Your task to perform on an android device: Open battery settings Image 0: 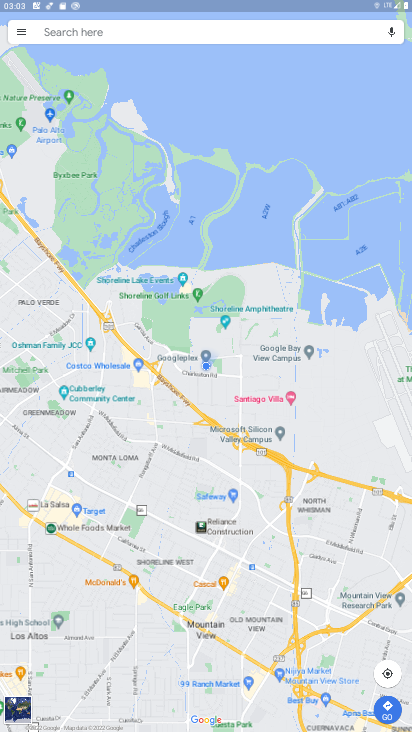
Step 0: press home button
Your task to perform on an android device: Open battery settings Image 1: 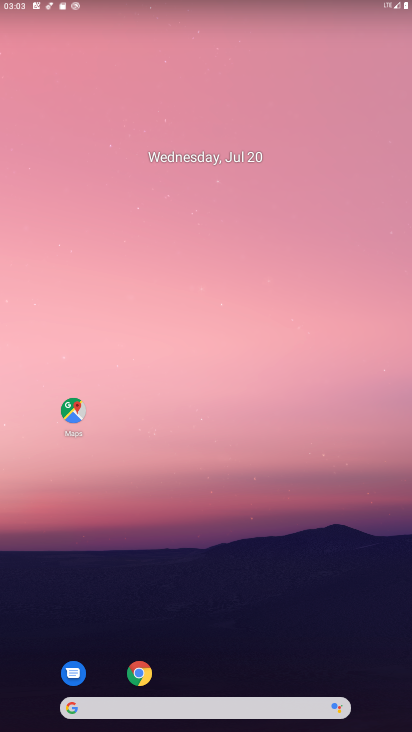
Step 1: drag from (214, 647) to (250, 209)
Your task to perform on an android device: Open battery settings Image 2: 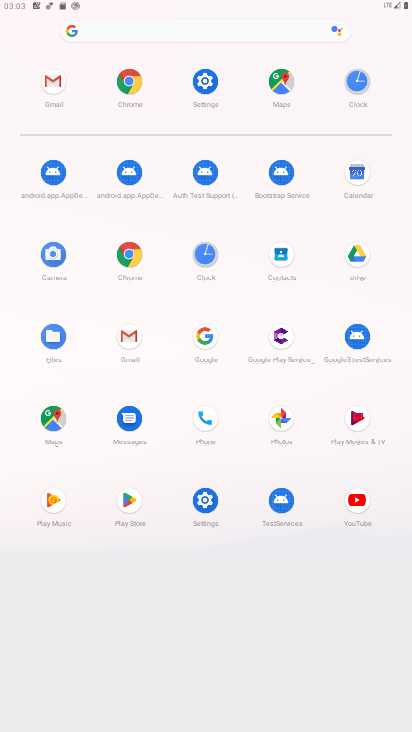
Step 2: click (198, 518)
Your task to perform on an android device: Open battery settings Image 3: 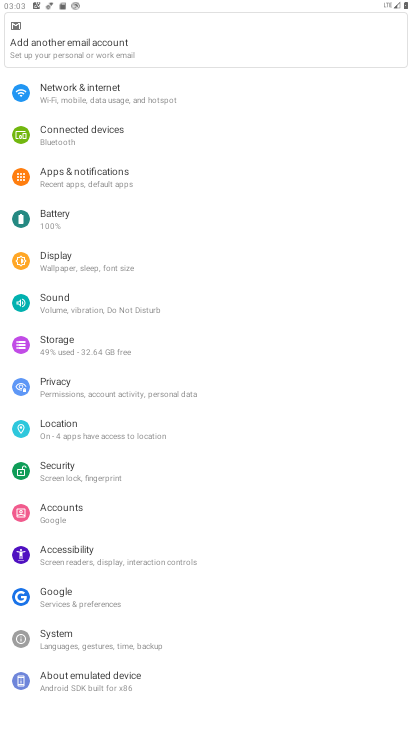
Step 3: click (68, 218)
Your task to perform on an android device: Open battery settings Image 4: 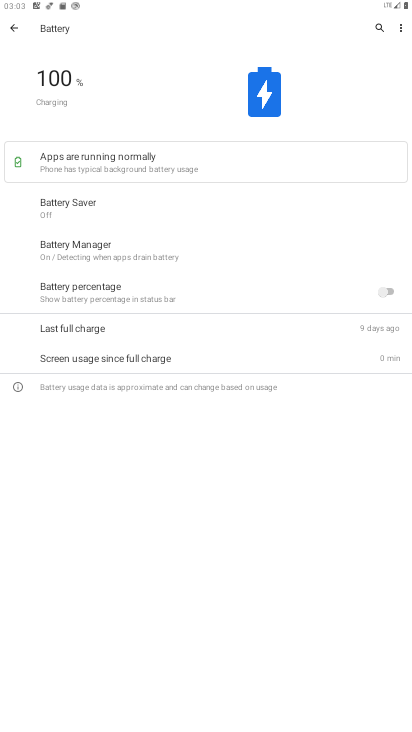
Step 4: task complete